Your task to perform on an android device: Open Google Image 0: 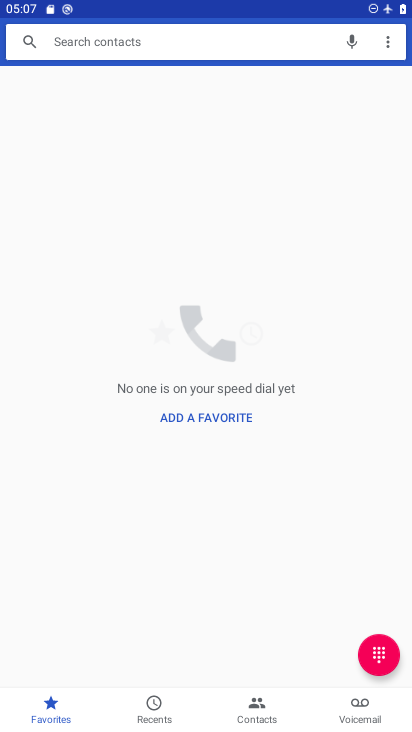
Step 0: press home button
Your task to perform on an android device: Open Google Image 1: 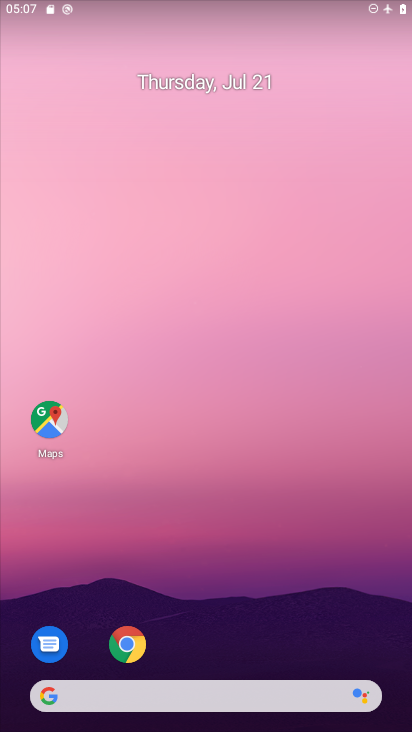
Step 1: click (122, 696)
Your task to perform on an android device: Open Google Image 2: 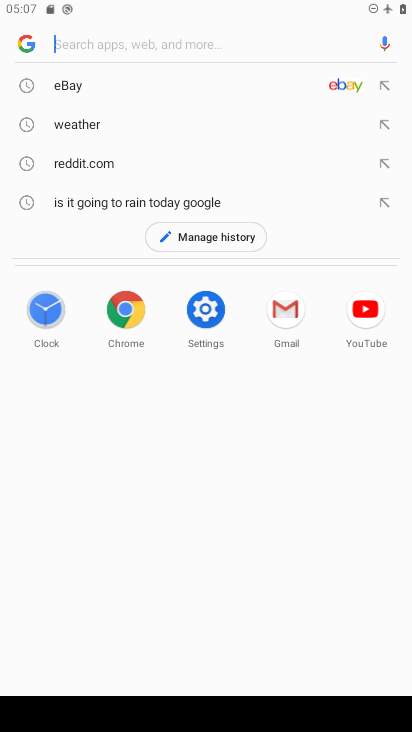
Step 2: task complete